Your task to perform on an android device: Search for sushi restaurants on Maps Image 0: 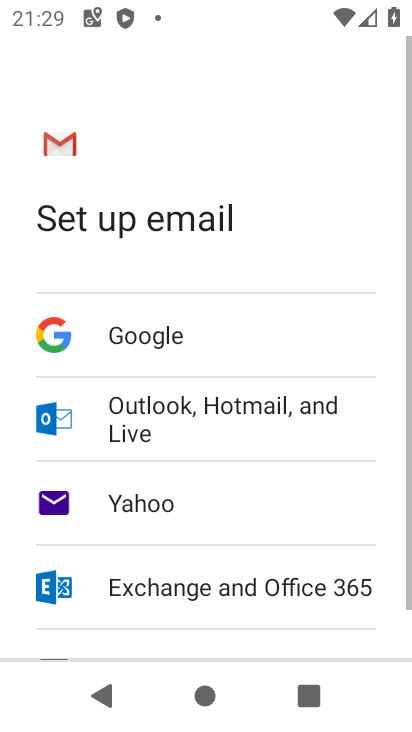
Step 0: press home button
Your task to perform on an android device: Search for sushi restaurants on Maps Image 1: 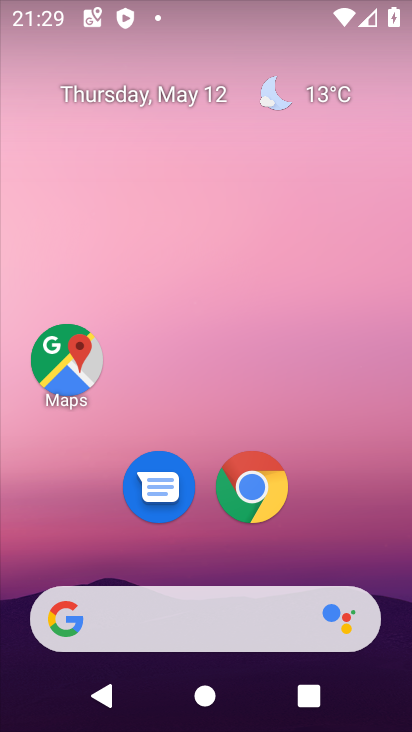
Step 1: click (69, 365)
Your task to perform on an android device: Search for sushi restaurants on Maps Image 2: 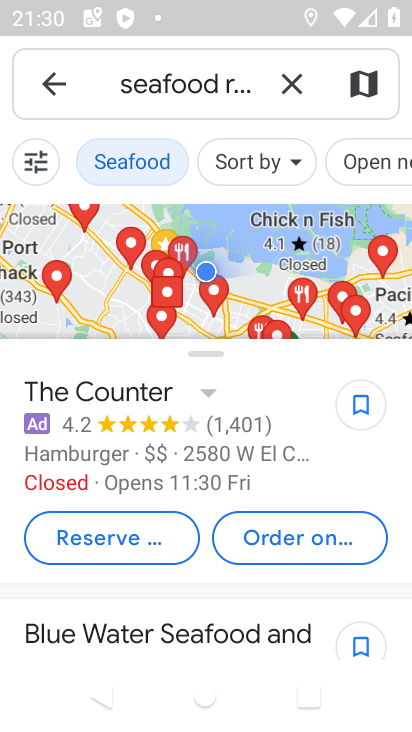
Step 2: click (290, 72)
Your task to perform on an android device: Search for sushi restaurants on Maps Image 3: 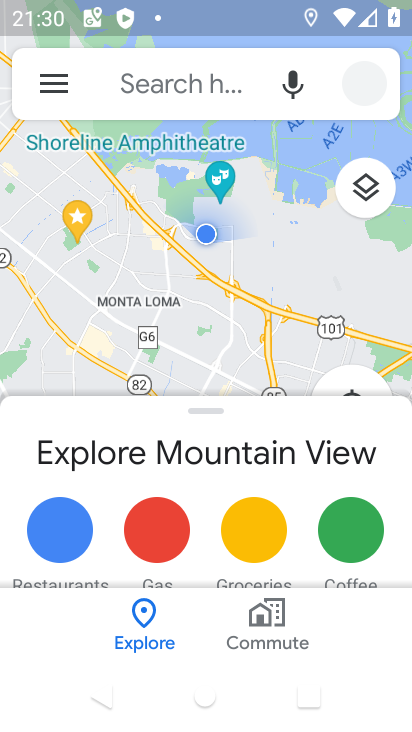
Step 3: click (194, 66)
Your task to perform on an android device: Search for sushi restaurants on Maps Image 4: 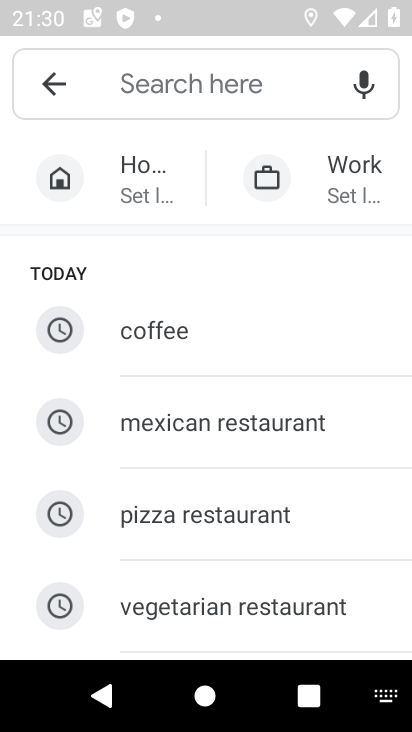
Step 4: type "sushi restaurant"
Your task to perform on an android device: Search for sushi restaurants on Maps Image 5: 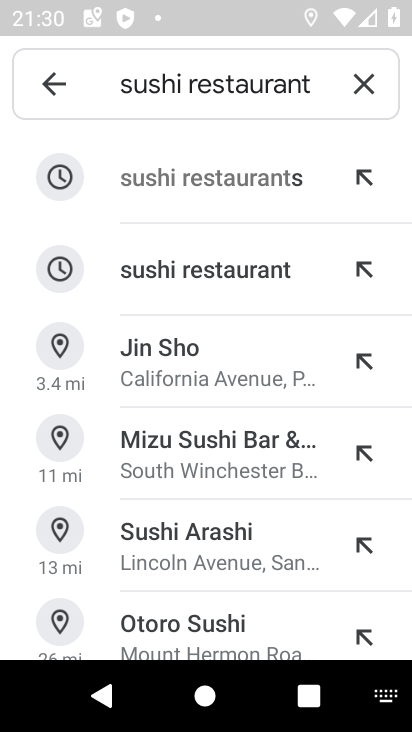
Step 5: click (188, 273)
Your task to perform on an android device: Search for sushi restaurants on Maps Image 6: 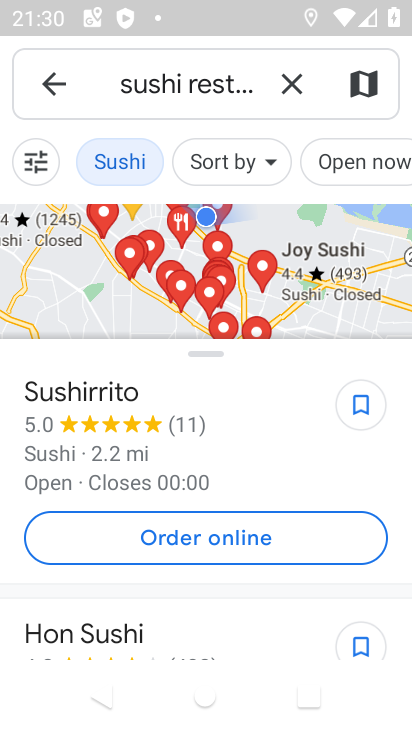
Step 6: task complete